Your task to perform on an android device: Go to battery settings Image 0: 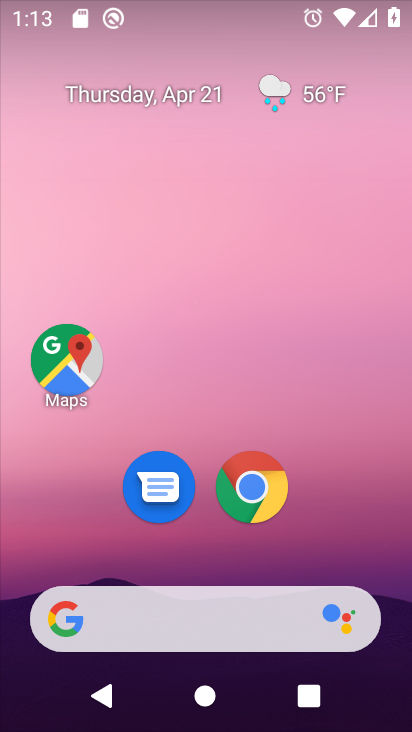
Step 0: drag from (308, 516) to (280, 160)
Your task to perform on an android device: Go to battery settings Image 1: 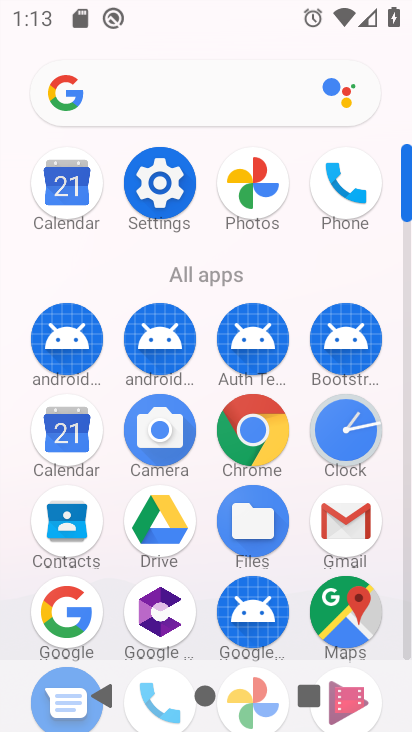
Step 1: click (156, 175)
Your task to perform on an android device: Go to battery settings Image 2: 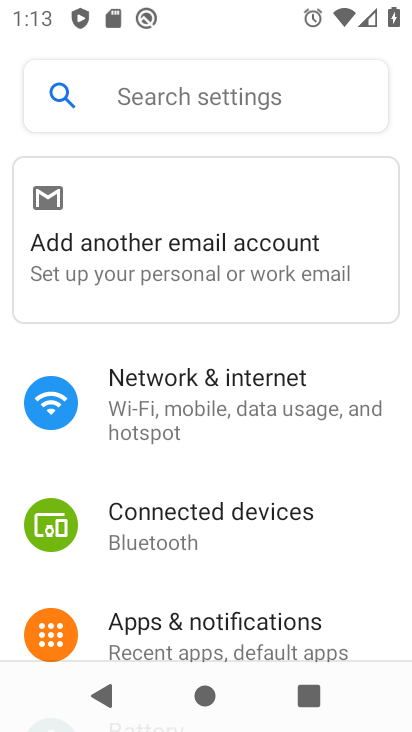
Step 2: drag from (367, 606) to (376, 227)
Your task to perform on an android device: Go to battery settings Image 3: 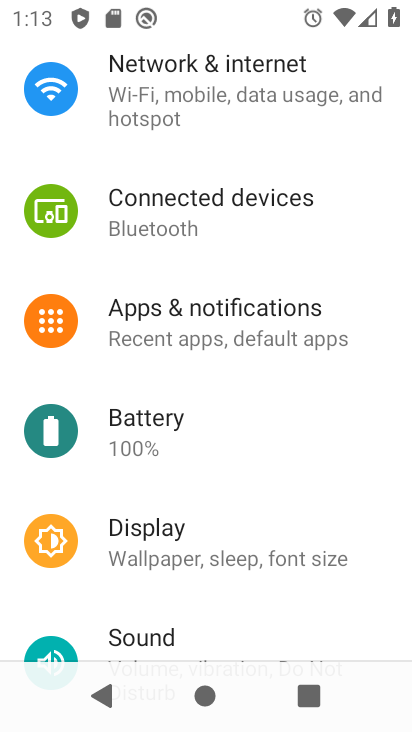
Step 3: click (137, 432)
Your task to perform on an android device: Go to battery settings Image 4: 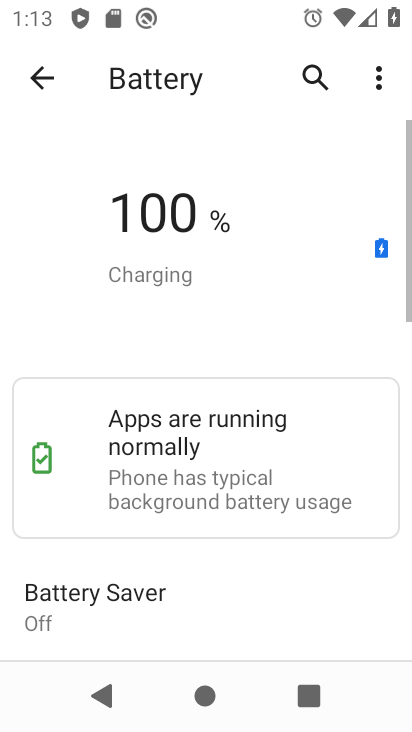
Step 4: task complete